Your task to perform on an android device: Open wifi settings Image 0: 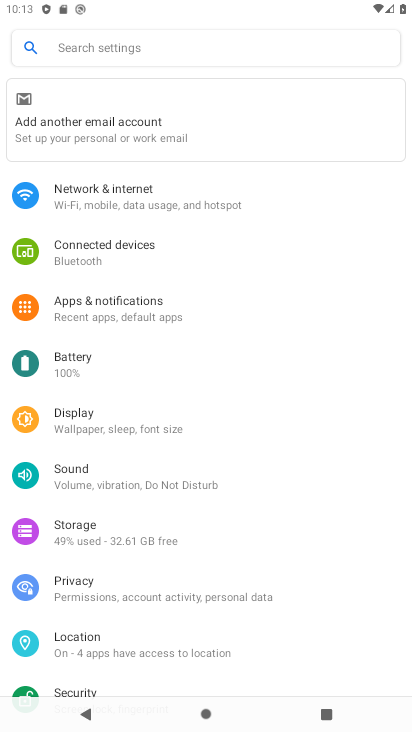
Step 0: click (168, 197)
Your task to perform on an android device: Open wifi settings Image 1: 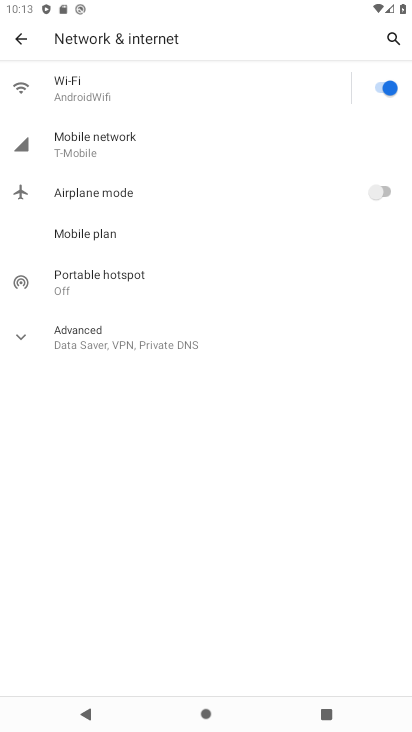
Step 1: click (133, 79)
Your task to perform on an android device: Open wifi settings Image 2: 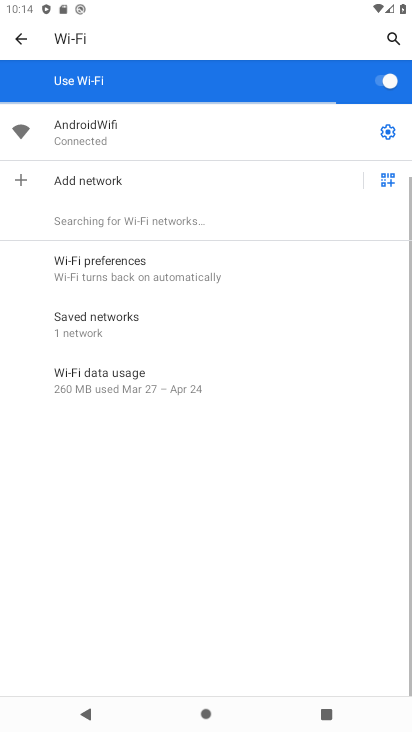
Step 2: task complete